Your task to perform on an android device: Show me popular games on the Play Store Image 0: 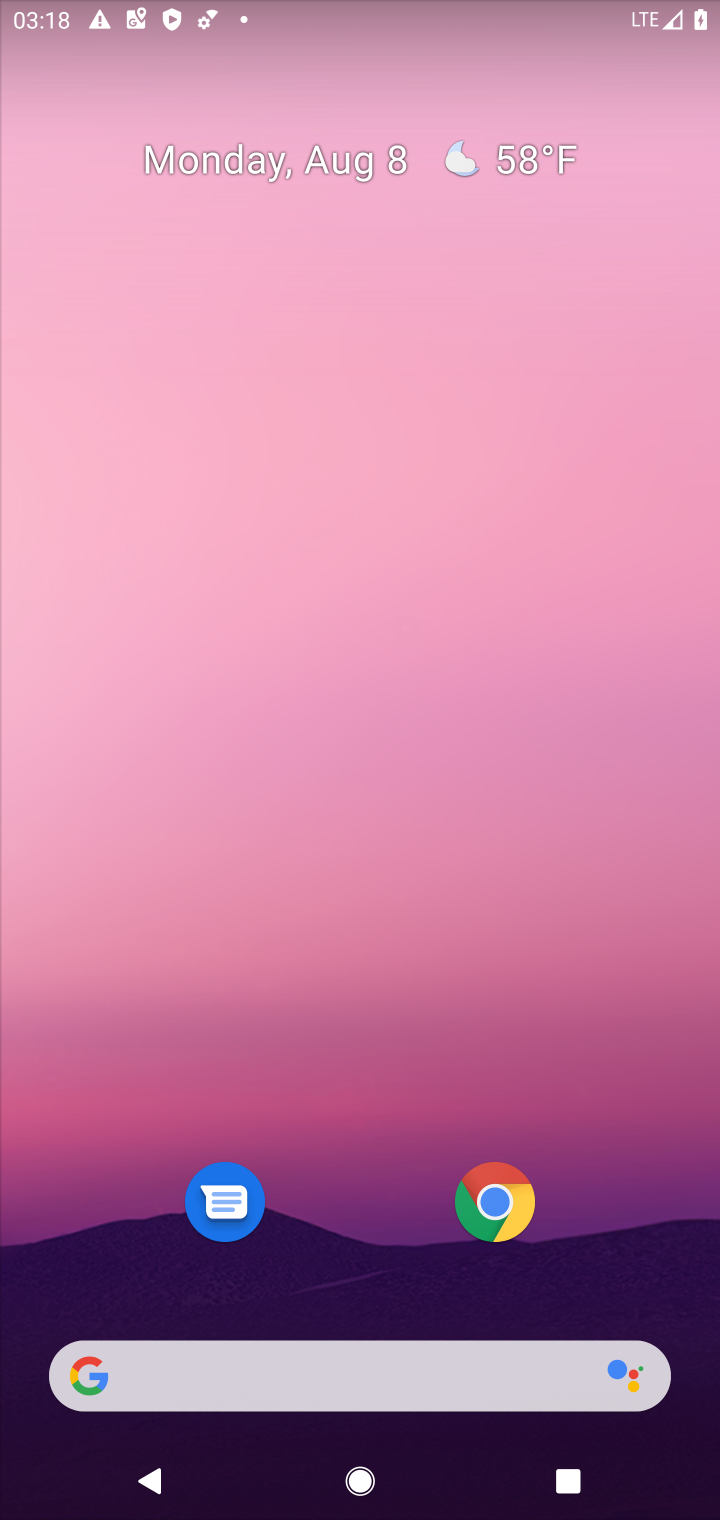
Step 0: press home button
Your task to perform on an android device: Show me popular games on the Play Store Image 1: 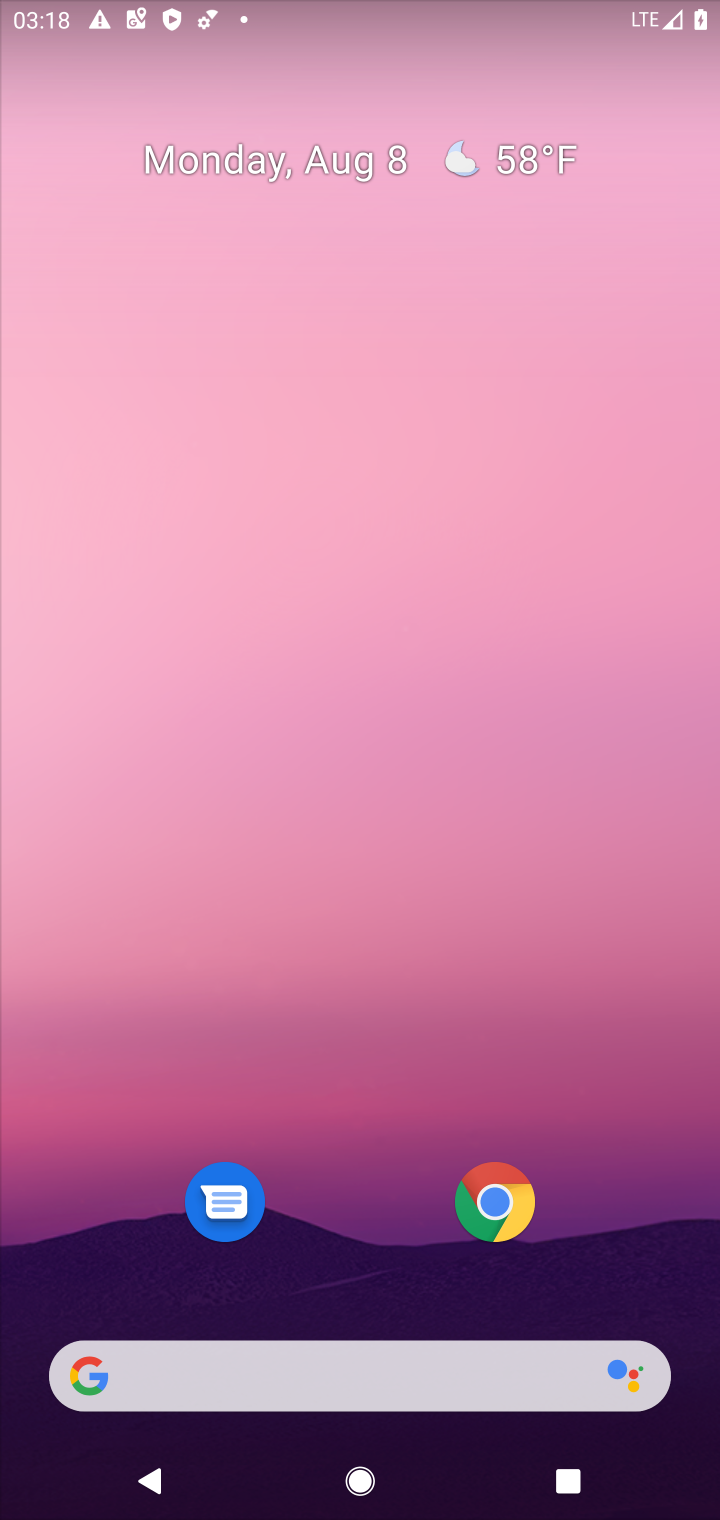
Step 1: drag from (388, 138) to (367, 0)
Your task to perform on an android device: Show me popular games on the Play Store Image 2: 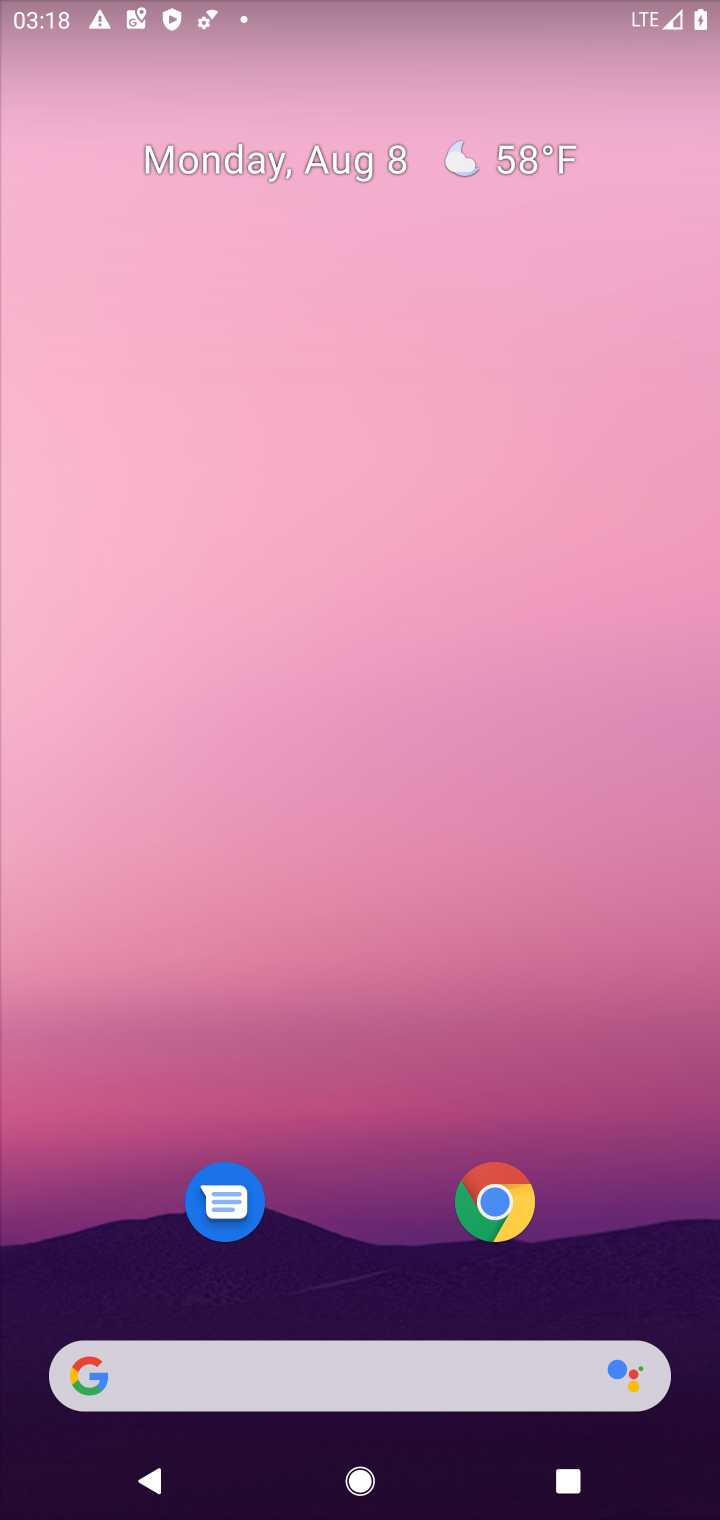
Step 2: drag from (334, 1280) to (385, 244)
Your task to perform on an android device: Show me popular games on the Play Store Image 3: 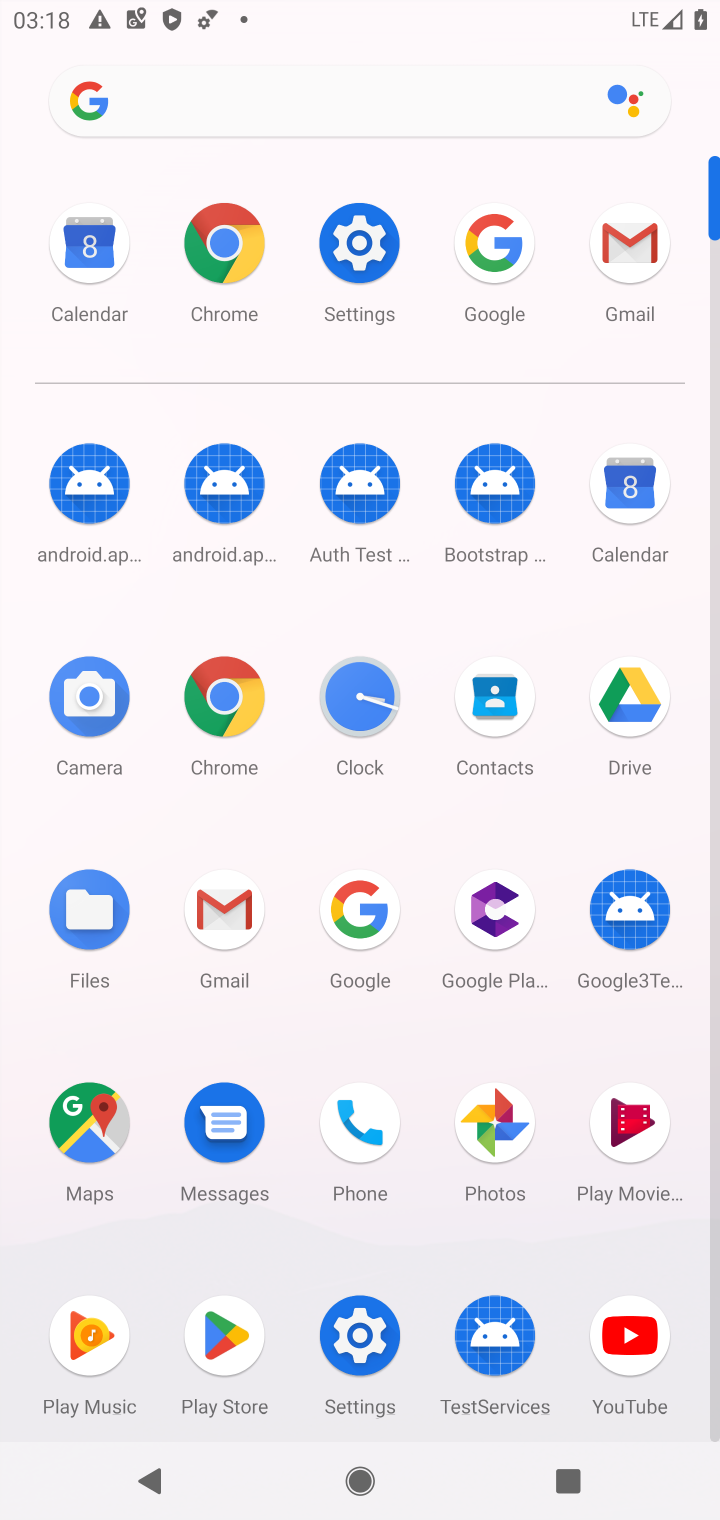
Step 3: click (244, 1352)
Your task to perform on an android device: Show me popular games on the Play Store Image 4: 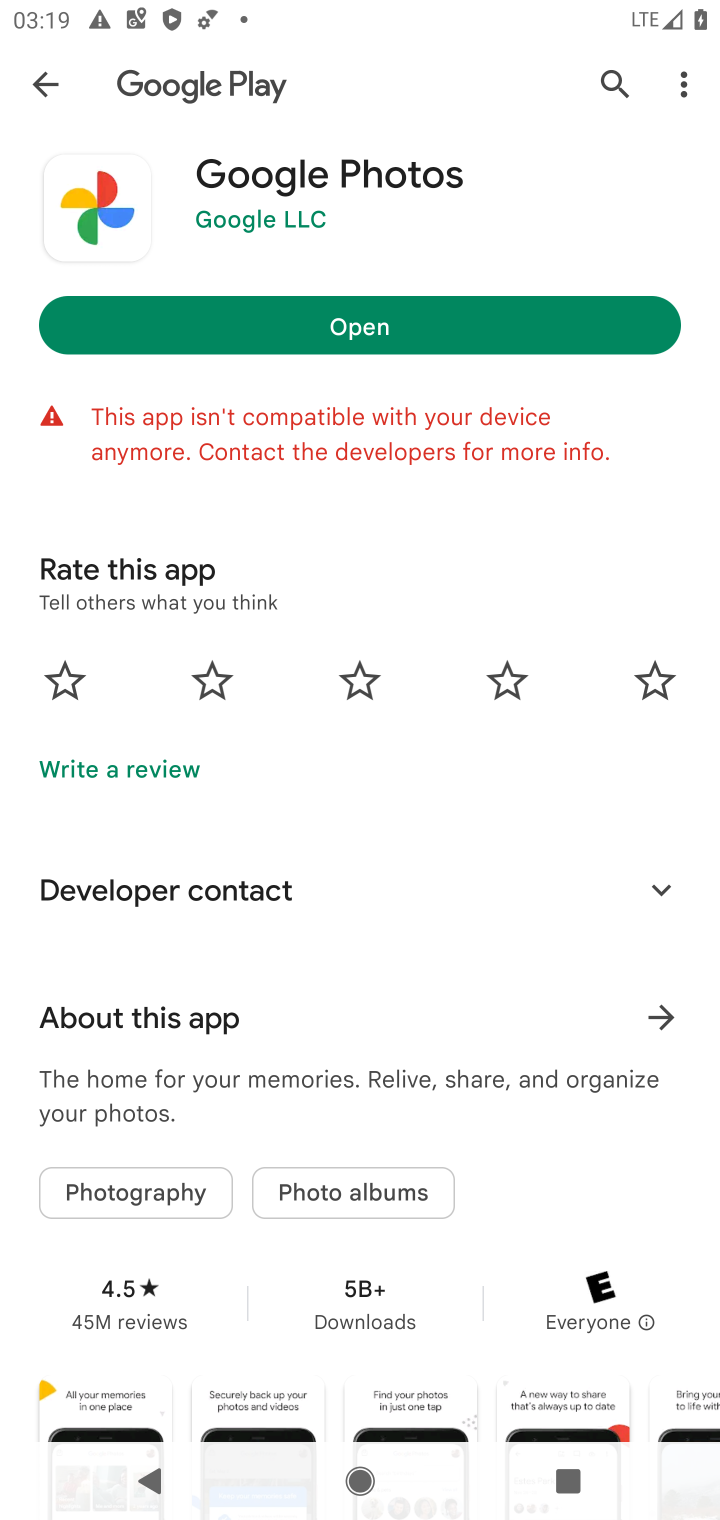
Step 4: click (36, 71)
Your task to perform on an android device: Show me popular games on the Play Store Image 5: 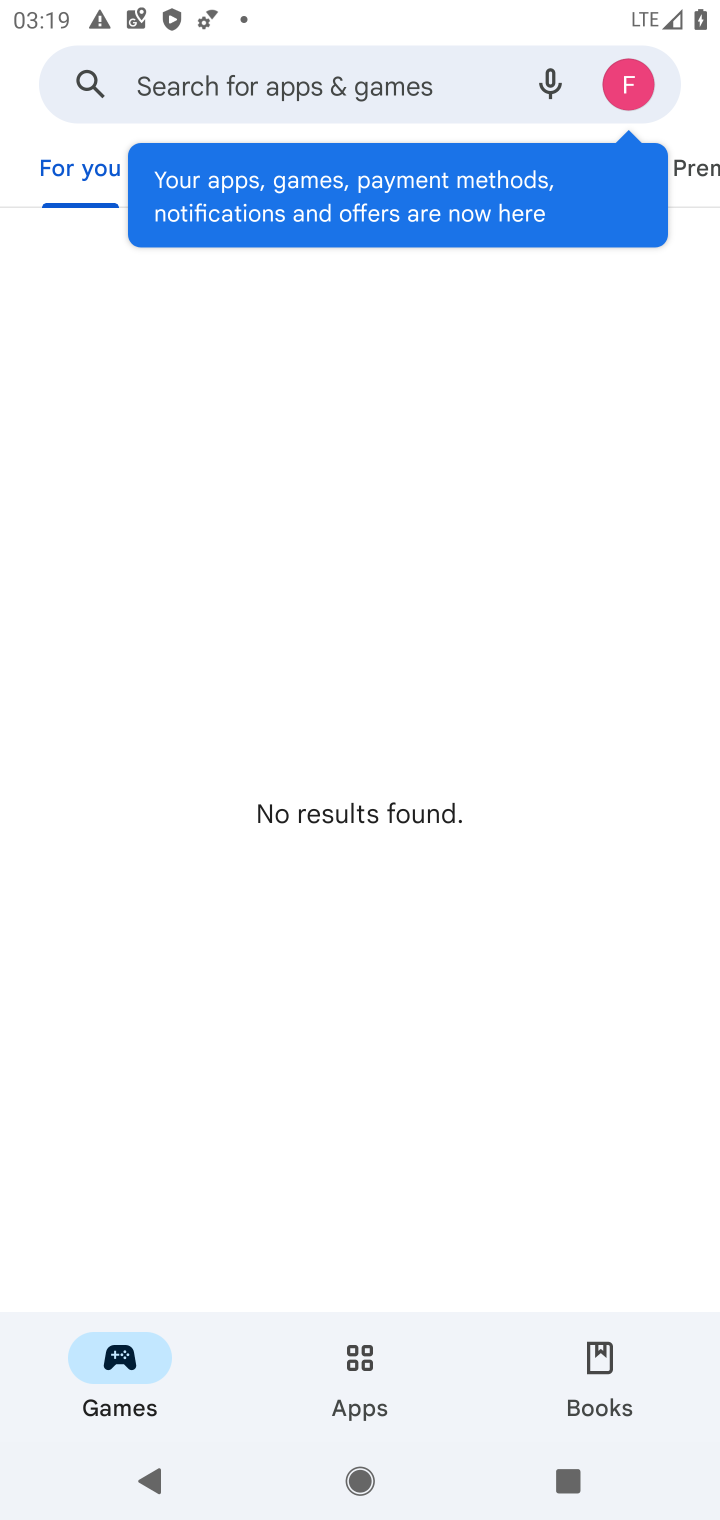
Step 5: task complete